Your task to perform on an android device: see creations saved in the google photos Image 0: 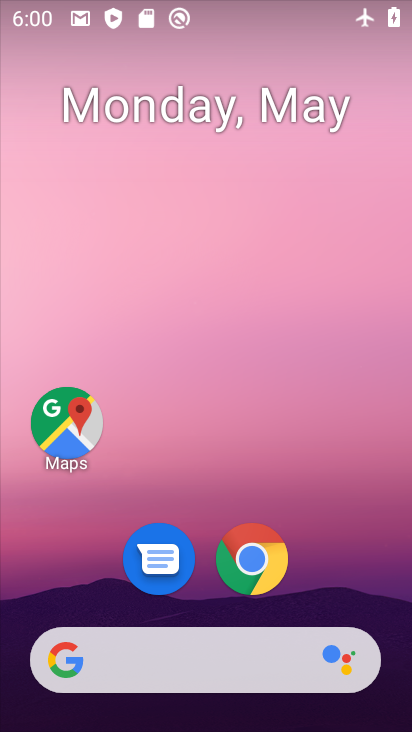
Step 0: drag from (350, 545) to (257, 42)
Your task to perform on an android device: see creations saved in the google photos Image 1: 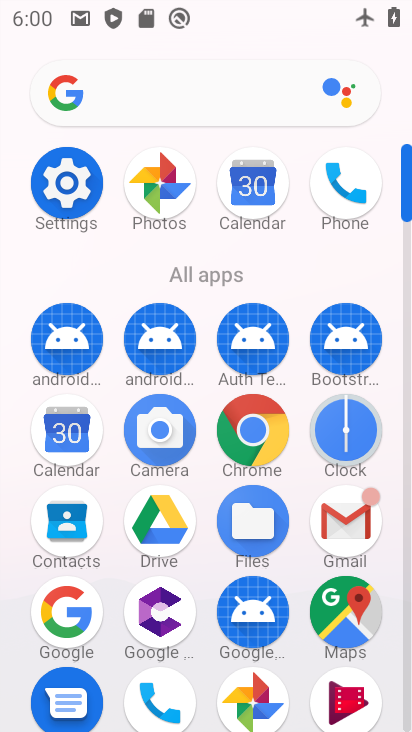
Step 1: click (159, 189)
Your task to perform on an android device: see creations saved in the google photos Image 2: 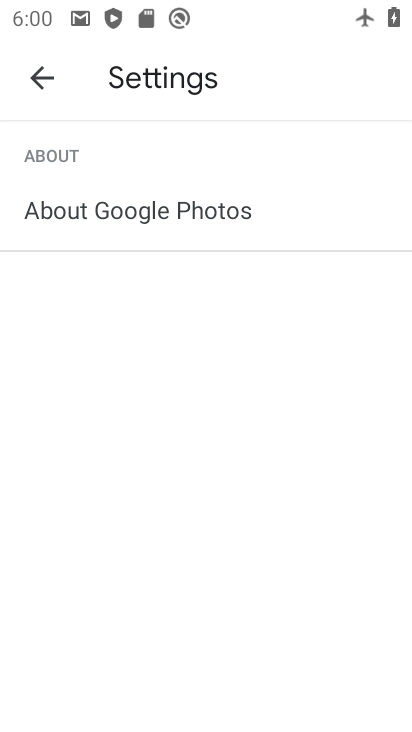
Step 2: click (43, 71)
Your task to perform on an android device: see creations saved in the google photos Image 3: 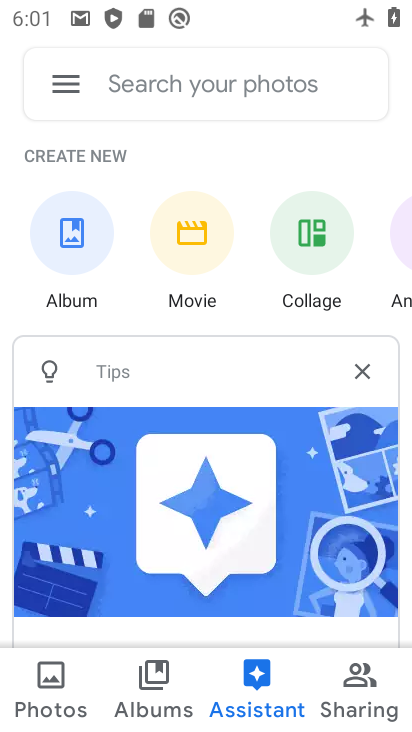
Step 3: click (103, 81)
Your task to perform on an android device: see creations saved in the google photos Image 4: 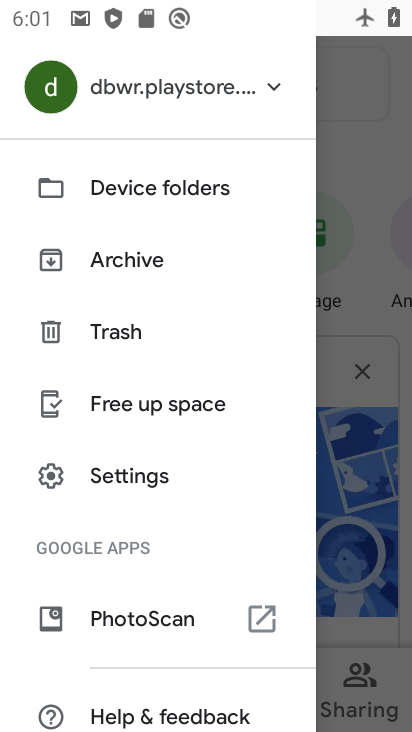
Step 4: click (376, 193)
Your task to perform on an android device: see creations saved in the google photos Image 5: 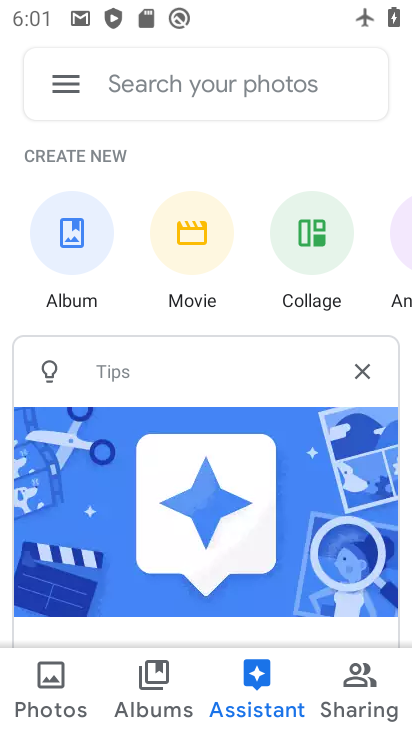
Step 5: click (207, 83)
Your task to perform on an android device: see creations saved in the google photos Image 6: 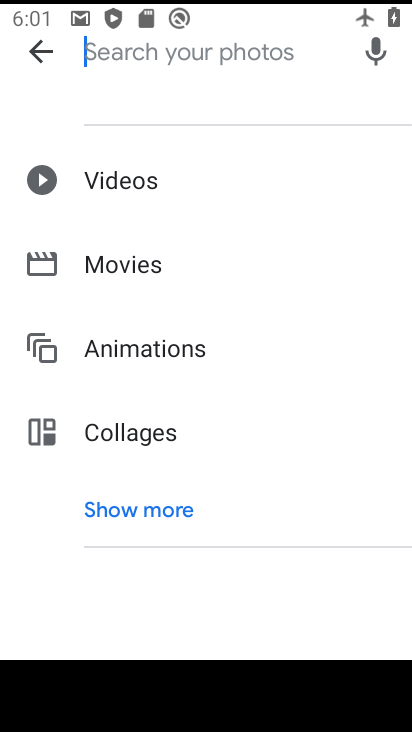
Step 6: click (105, 494)
Your task to perform on an android device: see creations saved in the google photos Image 7: 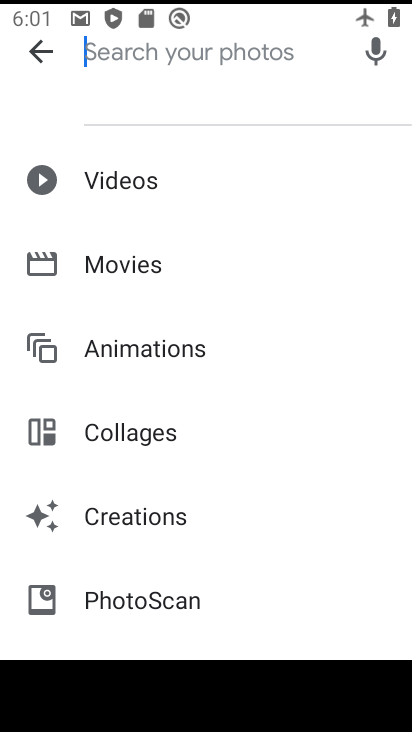
Step 7: click (112, 509)
Your task to perform on an android device: see creations saved in the google photos Image 8: 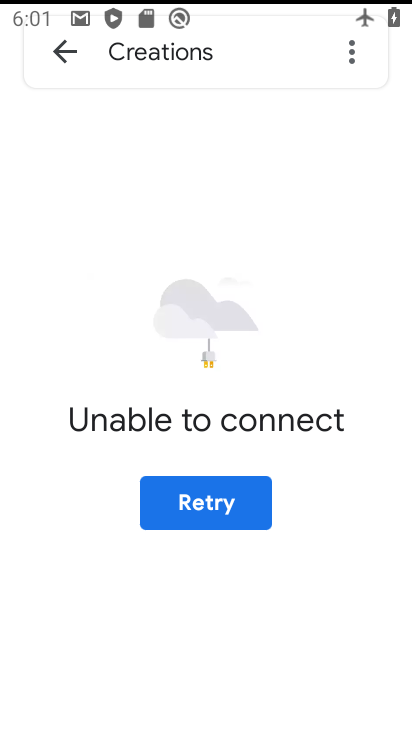
Step 8: click (210, 507)
Your task to perform on an android device: see creations saved in the google photos Image 9: 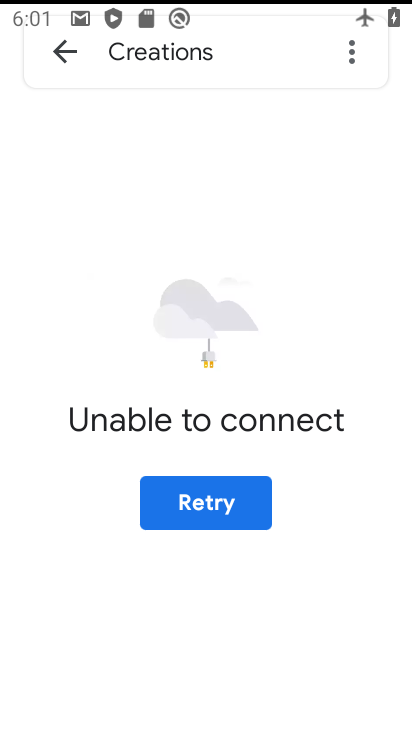
Step 9: click (210, 507)
Your task to perform on an android device: see creations saved in the google photos Image 10: 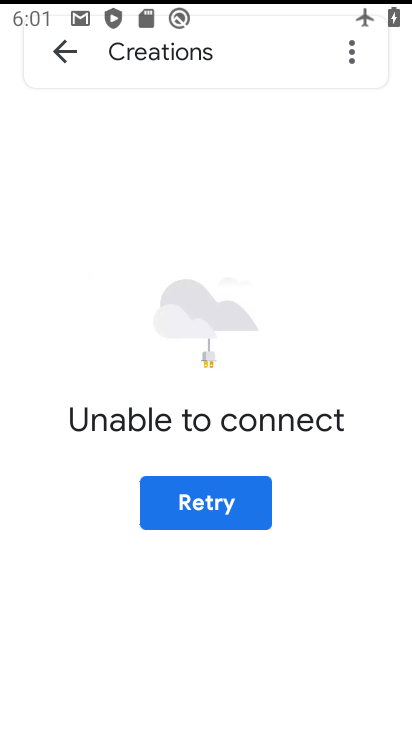
Step 10: click (204, 487)
Your task to perform on an android device: see creations saved in the google photos Image 11: 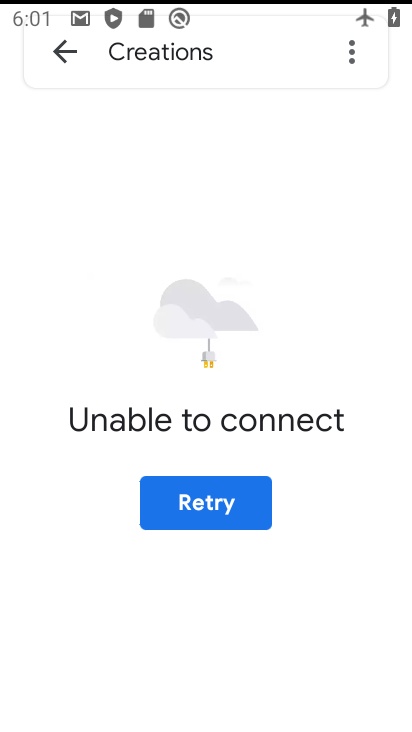
Step 11: click (204, 487)
Your task to perform on an android device: see creations saved in the google photos Image 12: 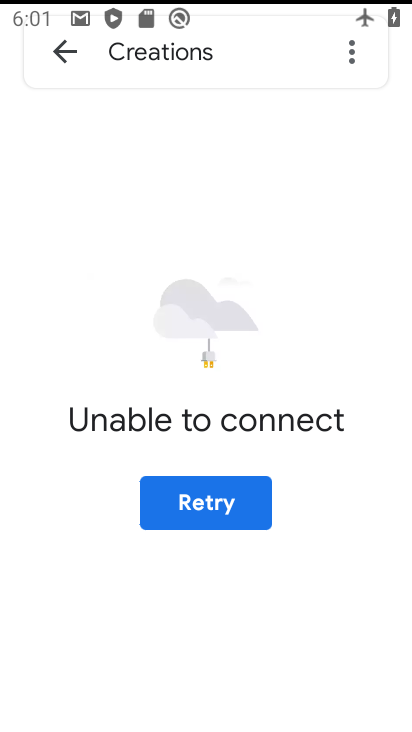
Step 12: click (205, 510)
Your task to perform on an android device: see creations saved in the google photos Image 13: 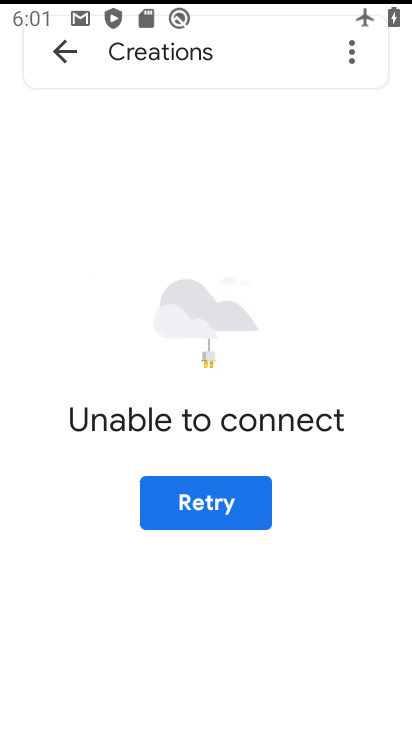
Step 13: click (205, 510)
Your task to perform on an android device: see creations saved in the google photos Image 14: 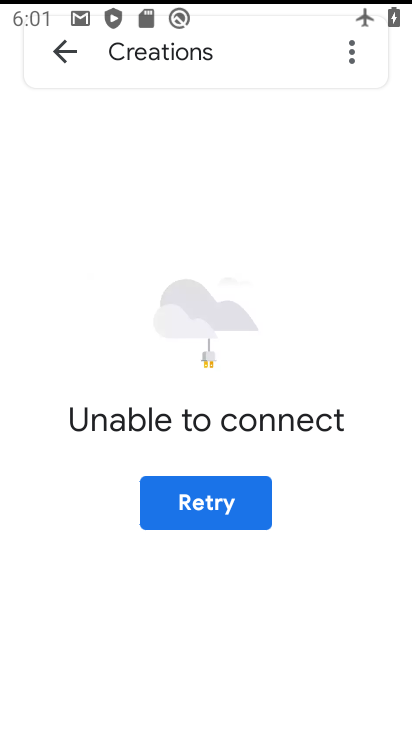
Step 14: click (205, 510)
Your task to perform on an android device: see creations saved in the google photos Image 15: 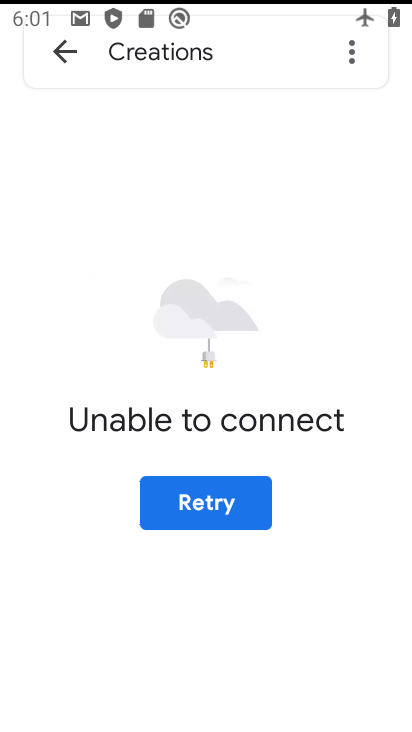
Step 15: click (205, 510)
Your task to perform on an android device: see creations saved in the google photos Image 16: 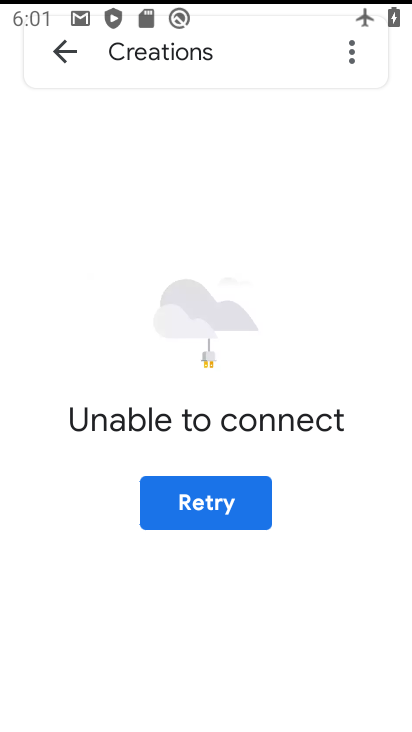
Step 16: task complete